Your task to perform on an android device: change timer sound Image 0: 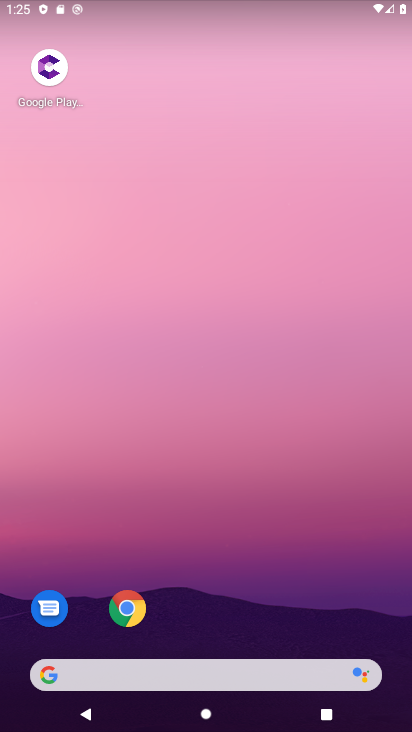
Step 0: drag from (172, 636) to (296, 103)
Your task to perform on an android device: change timer sound Image 1: 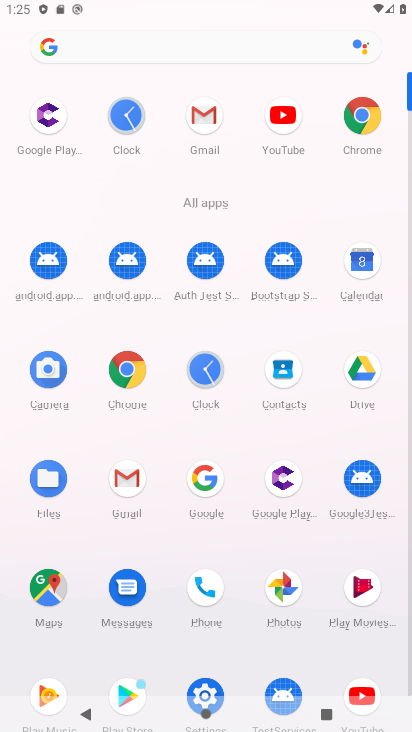
Step 1: click (196, 374)
Your task to perform on an android device: change timer sound Image 2: 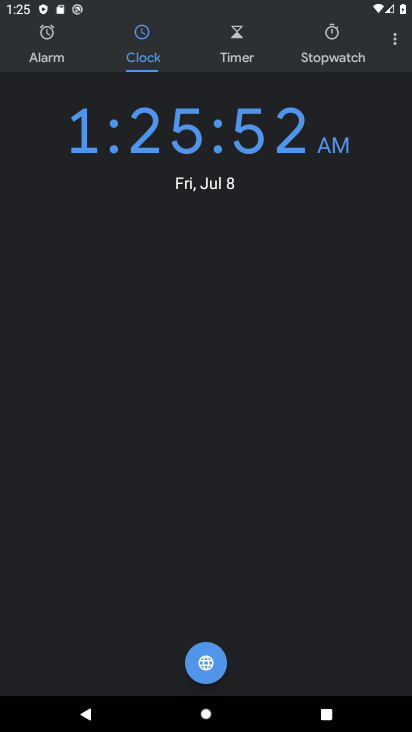
Step 2: click (398, 39)
Your task to perform on an android device: change timer sound Image 3: 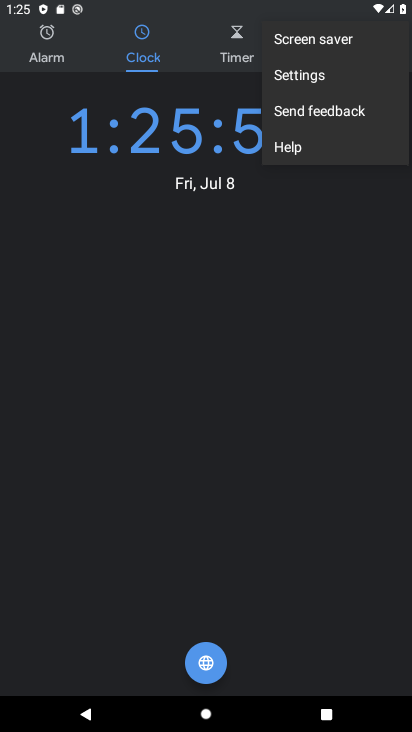
Step 3: click (350, 83)
Your task to perform on an android device: change timer sound Image 4: 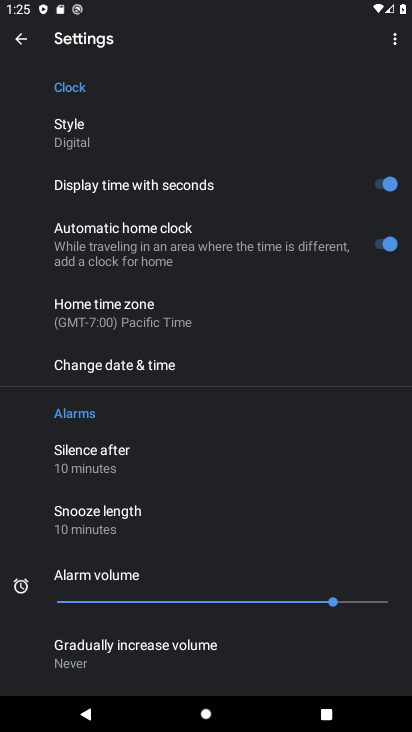
Step 4: drag from (192, 599) to (268, 220)
Your task to perform on an android device: change timer sound Image 5: 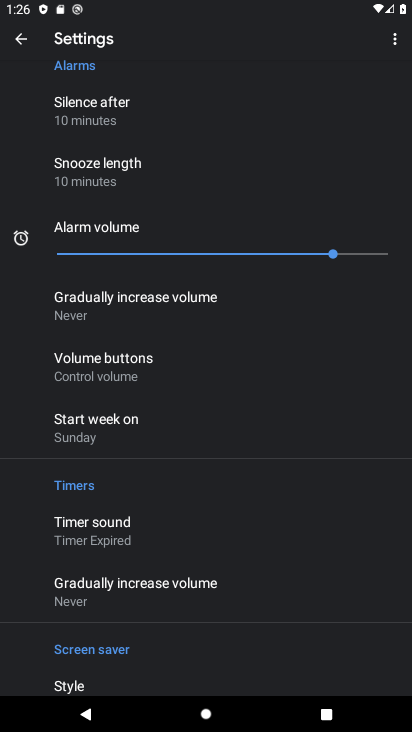
Step 5: click (169, 536)
Your task to perform on an android device: change timer sound Image 6: 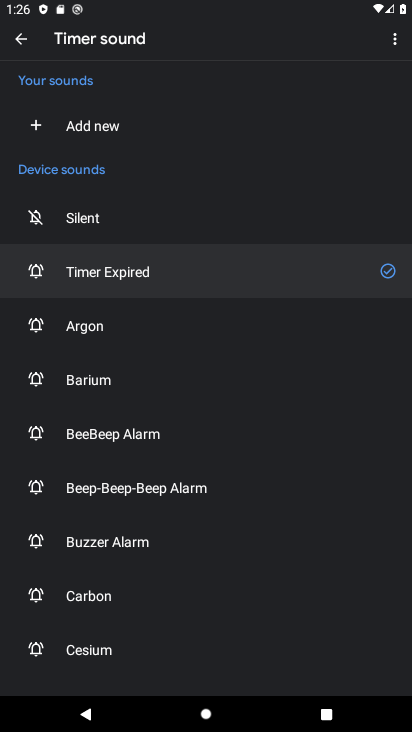
Step 6: click (132, 539)
Your task to perform on an android device: change timer sound Image 7: 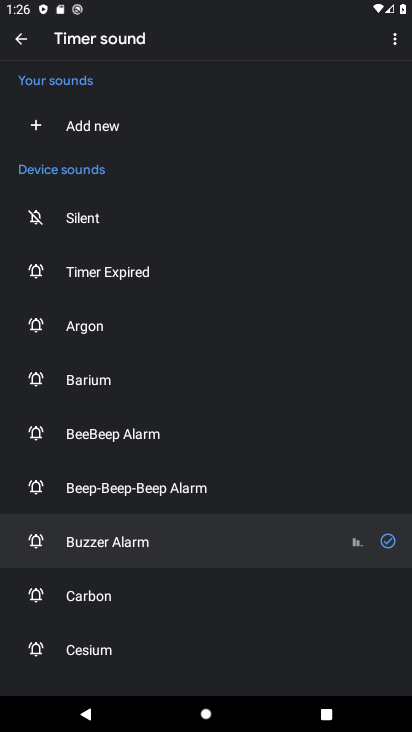
Step 7: task complete